Your task to perform on an android device: add a contact in the contacts app Image 0: 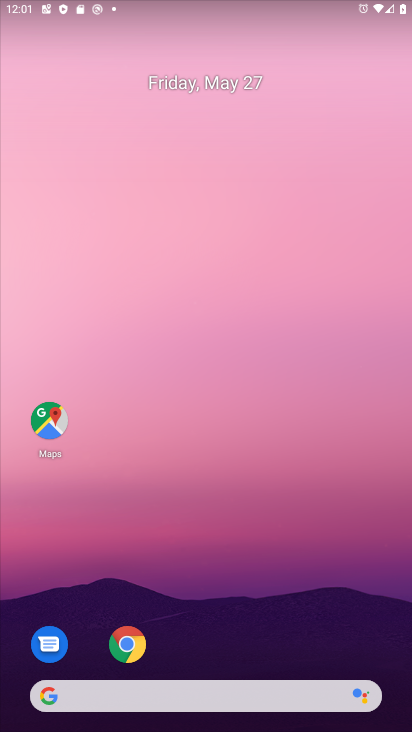
Step 0: click (133, 639)
Your task to perform on an android device: add a contact in the contacts app Image 1: 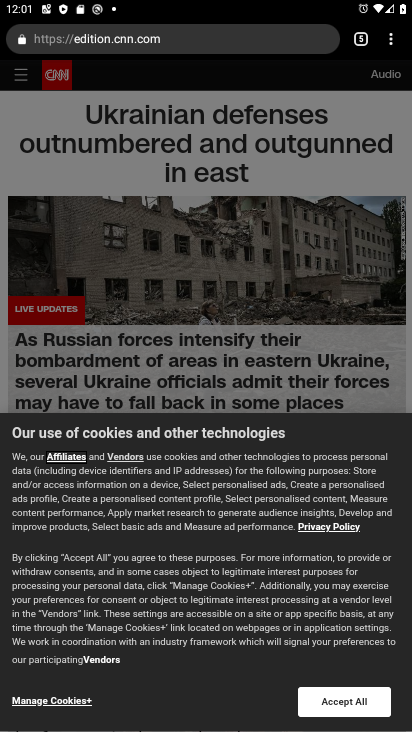
Step 1: press home button
Your task to perform on an android device: add a contact in the contacts app Image 2: 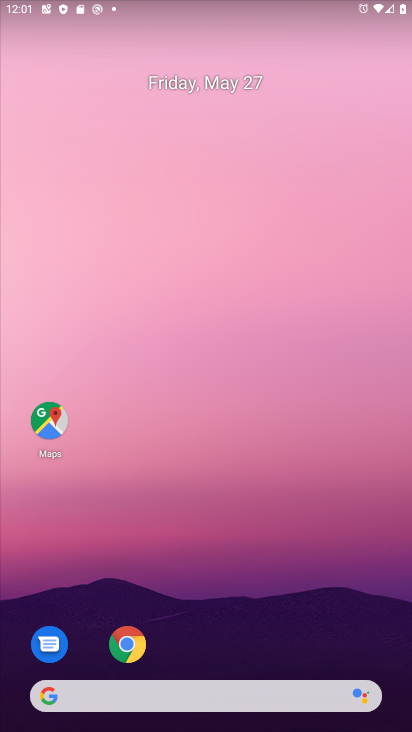
Step 2: drag from (197, 631) to (218, 234)
Your task to perform on an android device: add a contact in the contacts app Image 3: 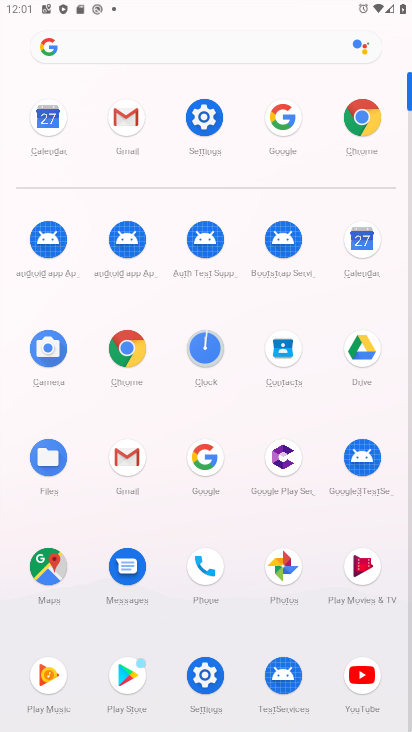
Step 3: click (271, 353)
Your task to perform on an android device: add a contact in the contacts app Image 4: 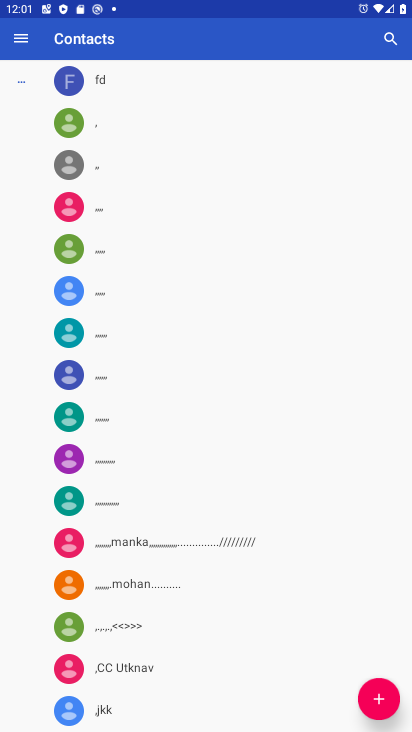
Step 4: click (377, 693)
Your task to perform on an android device: add a contact in the contacts app Image 5: 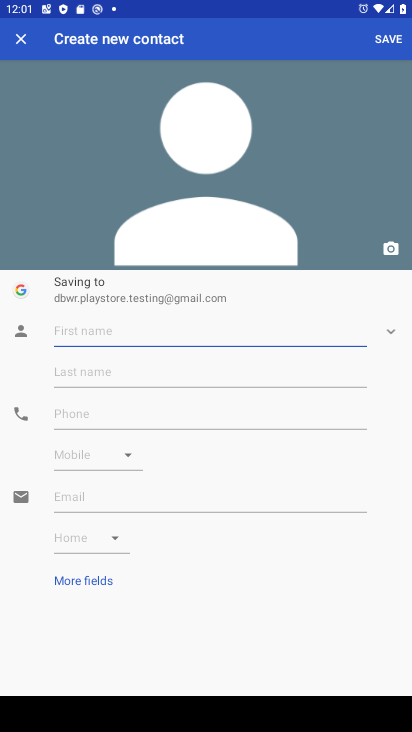
Step 5: type "dsfdsf"
Your task to perform on an android device: add a contact in the contacts app Image 6: 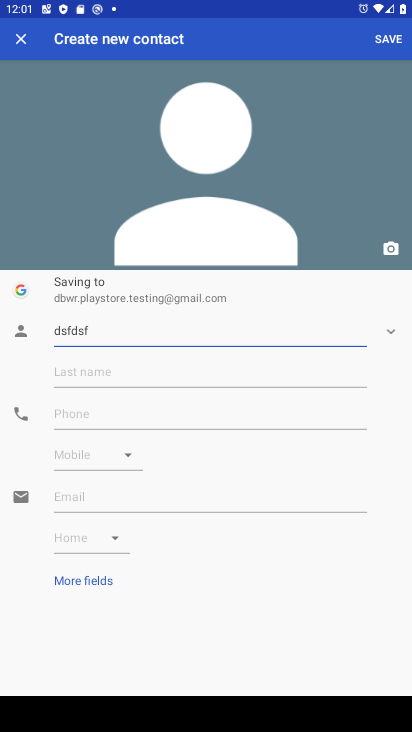
Step 6: click (130, 420)
Your task to perform on an android device: add a contact in the contacts app Image 7: 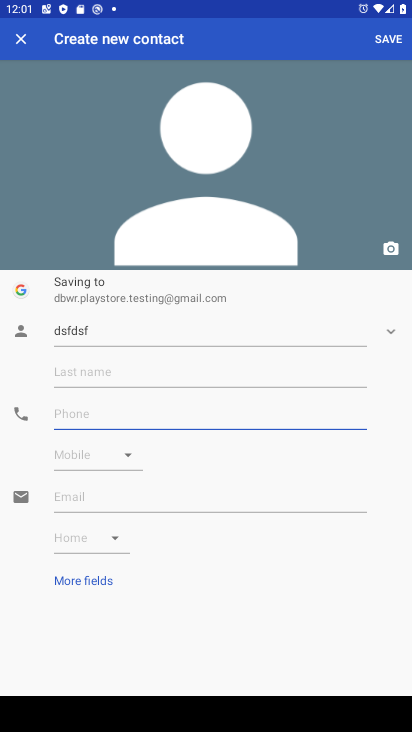
Step 7: type "8568685865"
Your task to perform on an android device: add a contact in the contacts app Image 8: 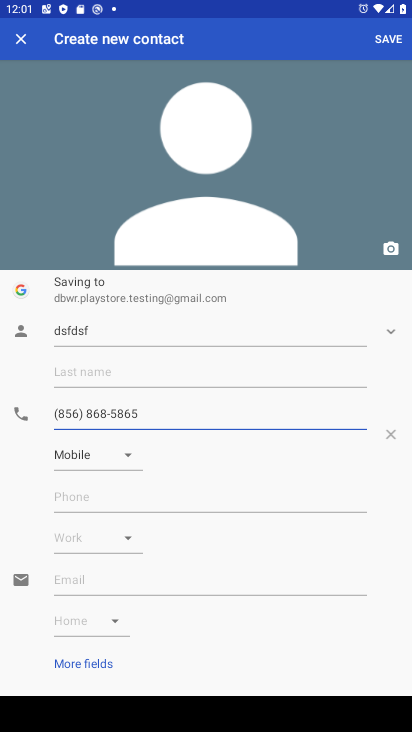
Step 8: click (373, 41)
Your task to perform on an android device: add a contact in the contacts app Image 9: 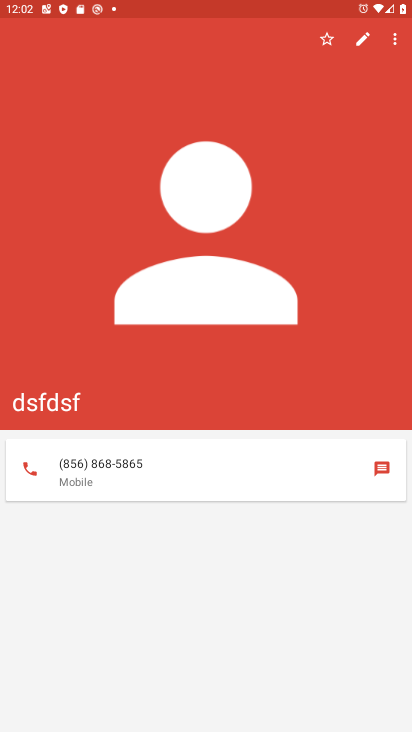
Step 9: task complete